Your task to perform on an android device: Open wifi settings Image 0: 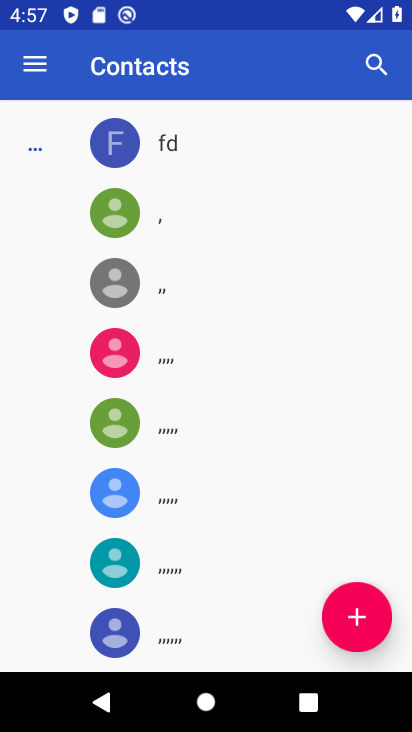
Step 0: press home button
Your task to perform on an android device: Open wifi settings Image 1: 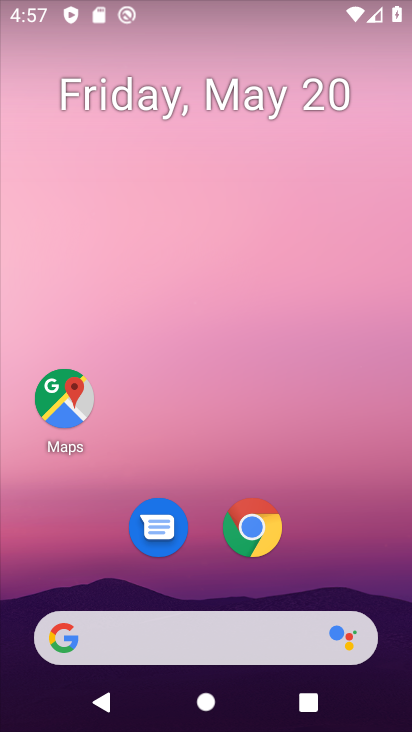
Step 1: drag from (257, 588) to (285, 57)
Your task to perform on an android device: Open wifi settings Image 2: 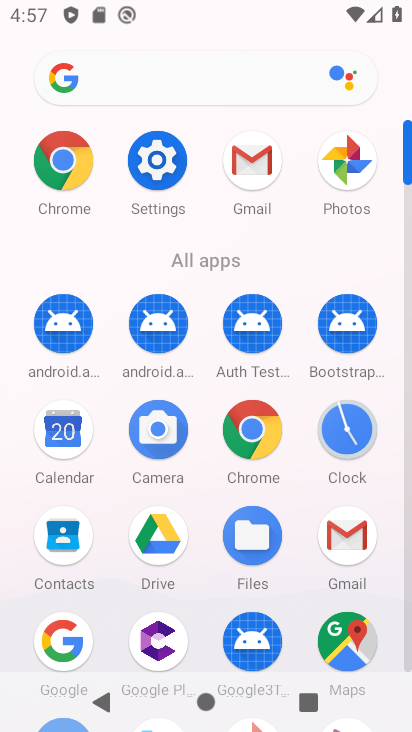
Step 2: click (168, 167)
Your task to perform on an android device: Open wifi settings Image 3: 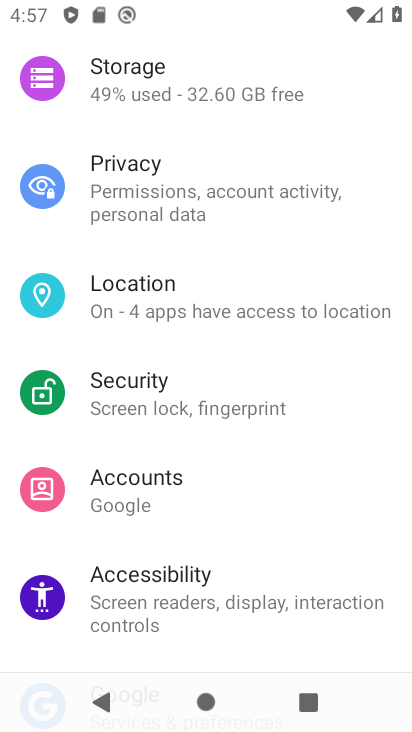
Step 3: drag from (219, 114) to (240, 719)
Your task to perform on an android device: Open wifi settings Image 4: 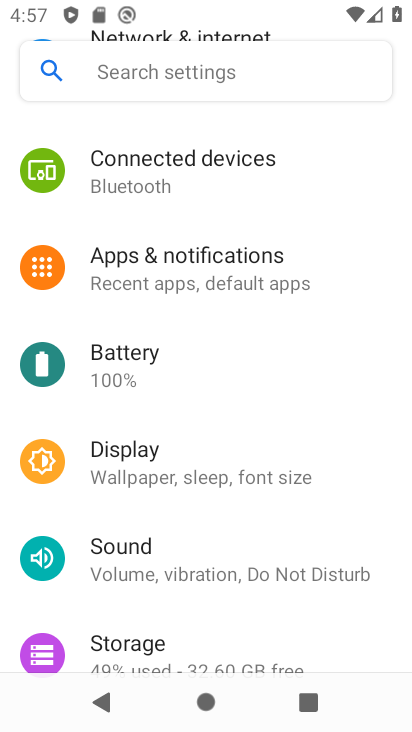
Step 4: drag from (196, 177) to (230, 582)
Your task to perform on an android device: Open wifi settings Image 5: 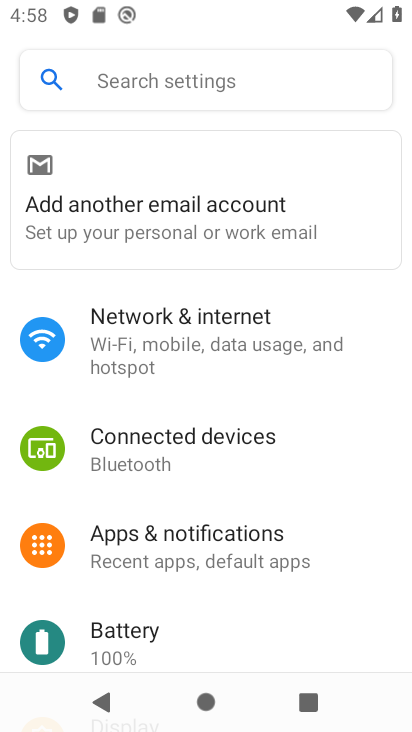
Step 5: click (167, 326)
Your task to perform on an android device: Open wifi settings Image 6: 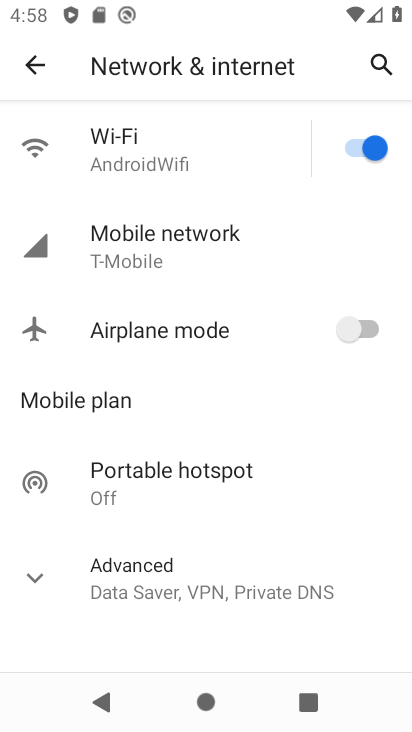
Step 6: click (147, 148)
Your task to perform on an android device: Open wifi settings Image 7: 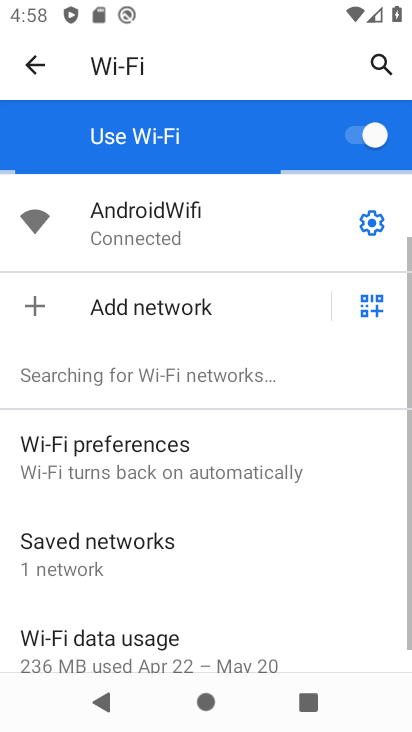
Step 7: task complete